Your task to perform on an android device: Show me recent news Image 0: 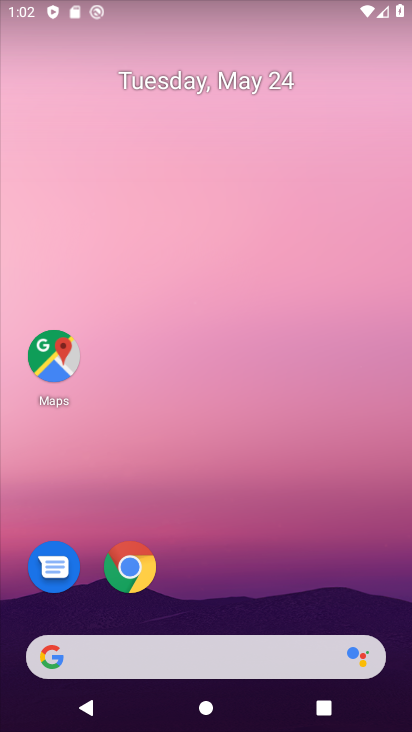
Step 0: drag from (243, 579) to (287, 4)
Your task to perform on an android device: Show me recent news Image 1: 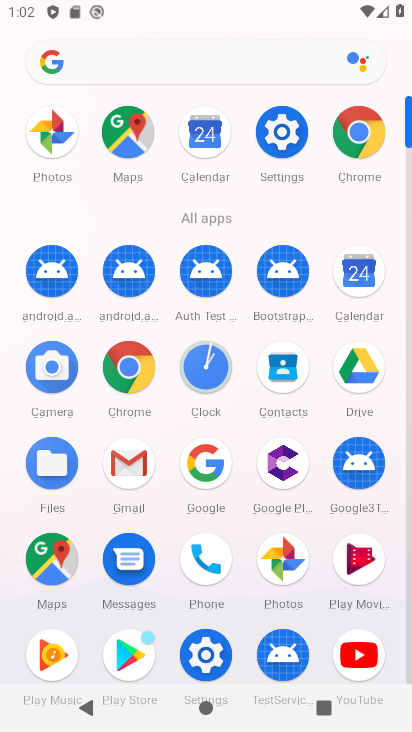
Step 1: click (180, 64)
Your task to perform on an android device: Show me recent news Image 2: 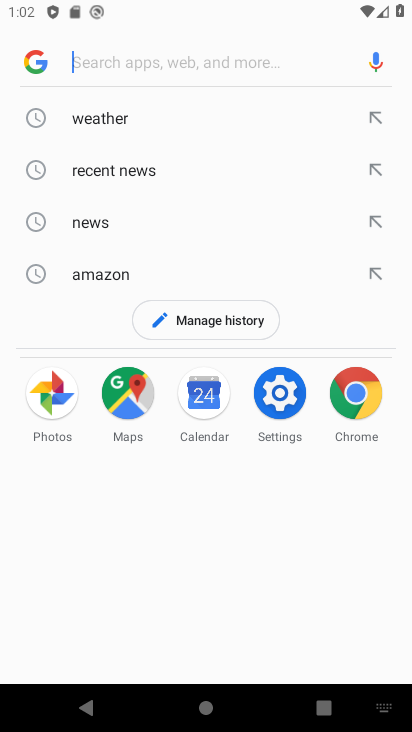
Step 2: type "recent news"
Your task to perform on an android device: Show me recent news Image 3: 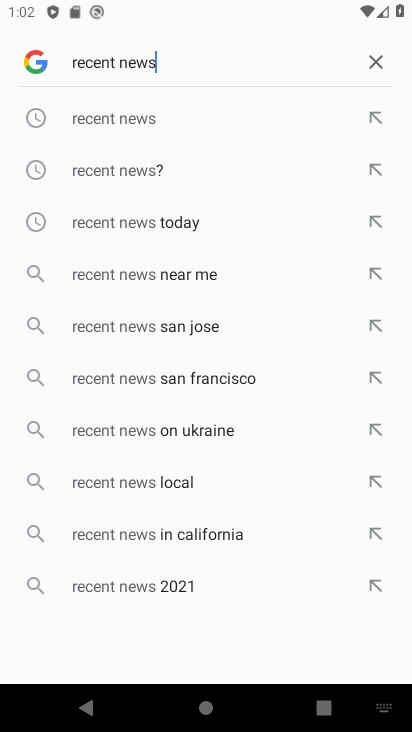
Step 3: click (135, 122)
Your task to perform on an android device: Show me recent news Image 4: 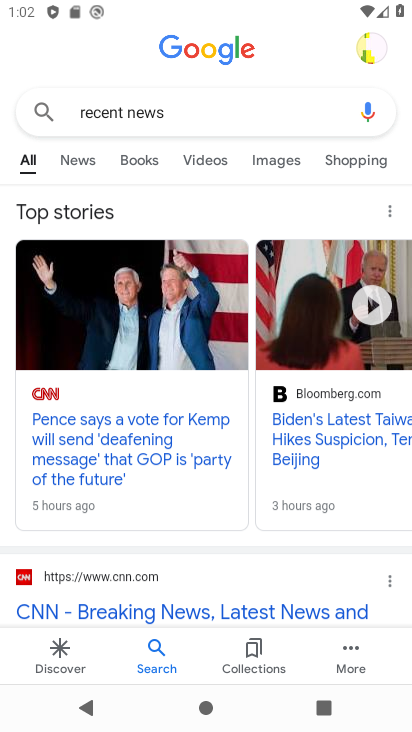
Step 4: task complete